Your task to perform on an android device: open app "Clock" Image 0: 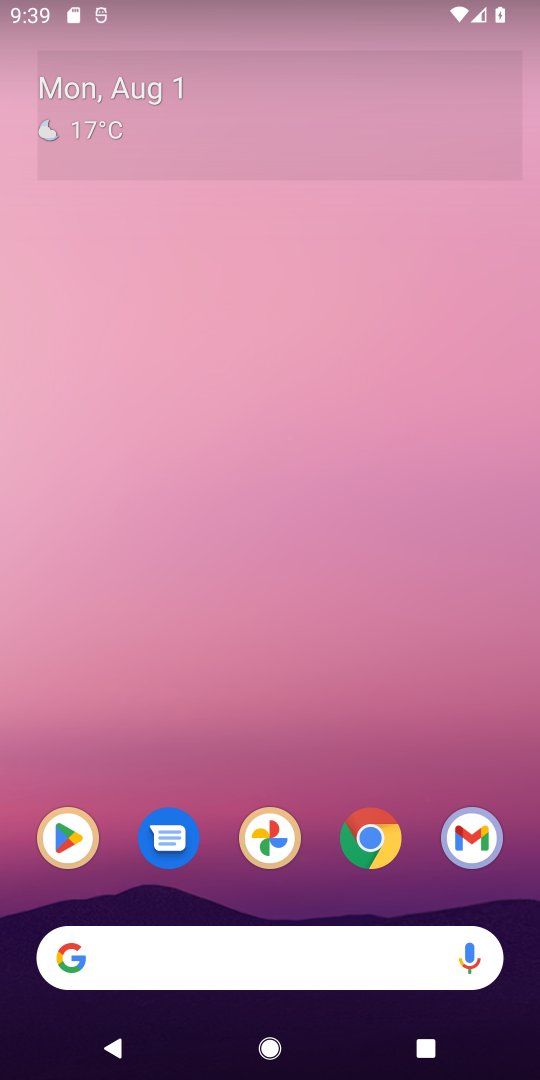
Step 0: press home button
Your task to perform on an android device: open app "Clock" Image 1: 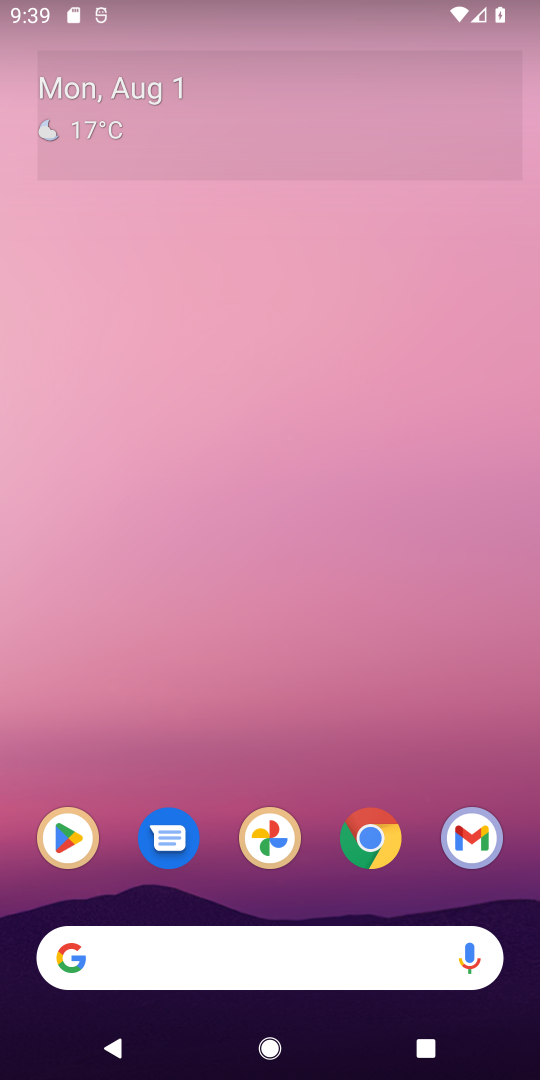
Step 1: click (48, 827)
Your task to perform on an android device: open app "Clock" Image 2: 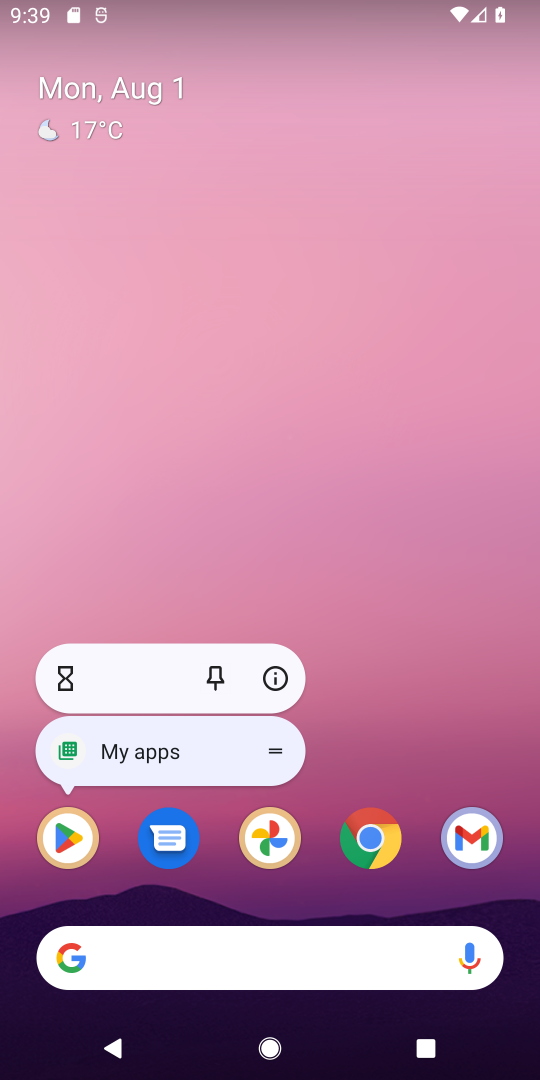
Step 2: click (59, 854)
Your task to perform on an android device: open app "Clock" Image 3: 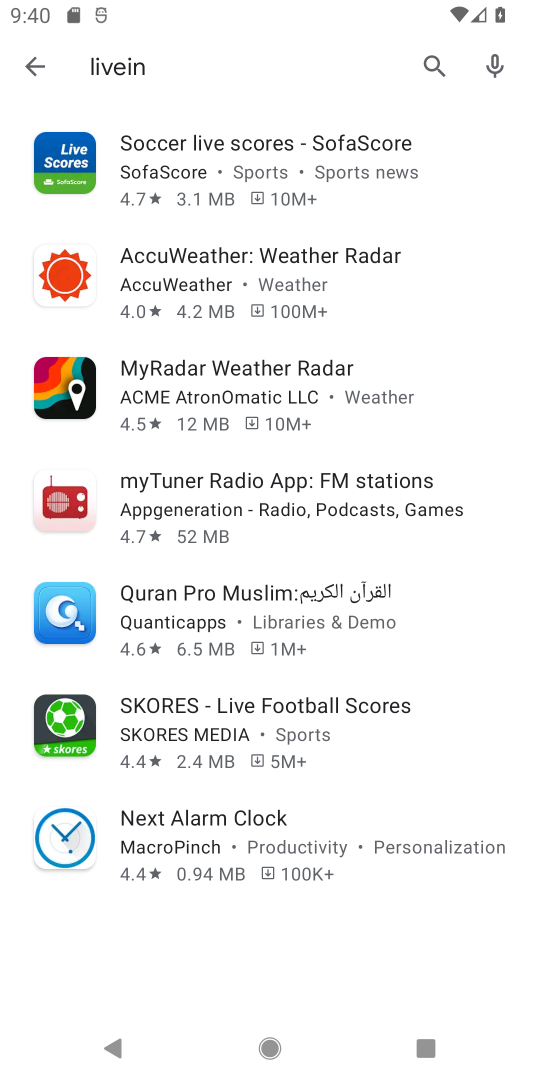
Step 3: click (425, 73)
Your task to perform on an android device: open app "Clock" Image 4: 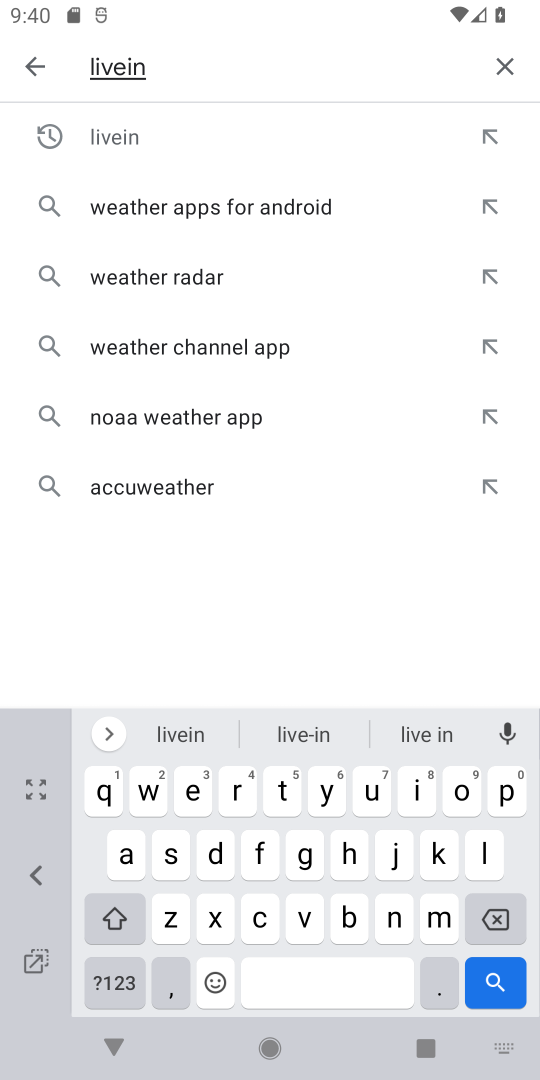
Step 4: click (496, 70)
Your task to perform on an android device: open app "Clock" Image 5: 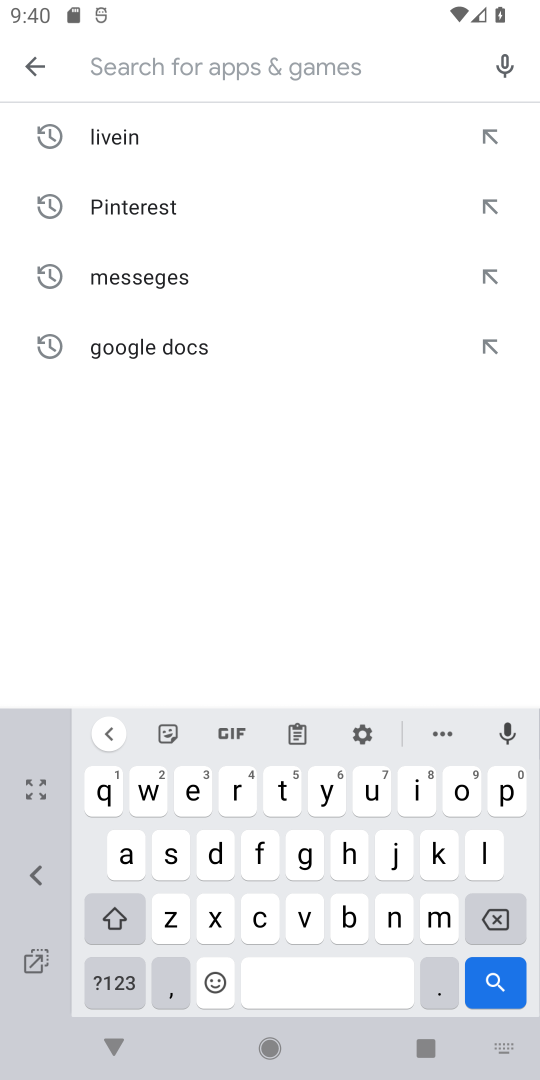
Step 5: click (506, 66)
Your task to perform on an android device: open app "Clock" Image 6: 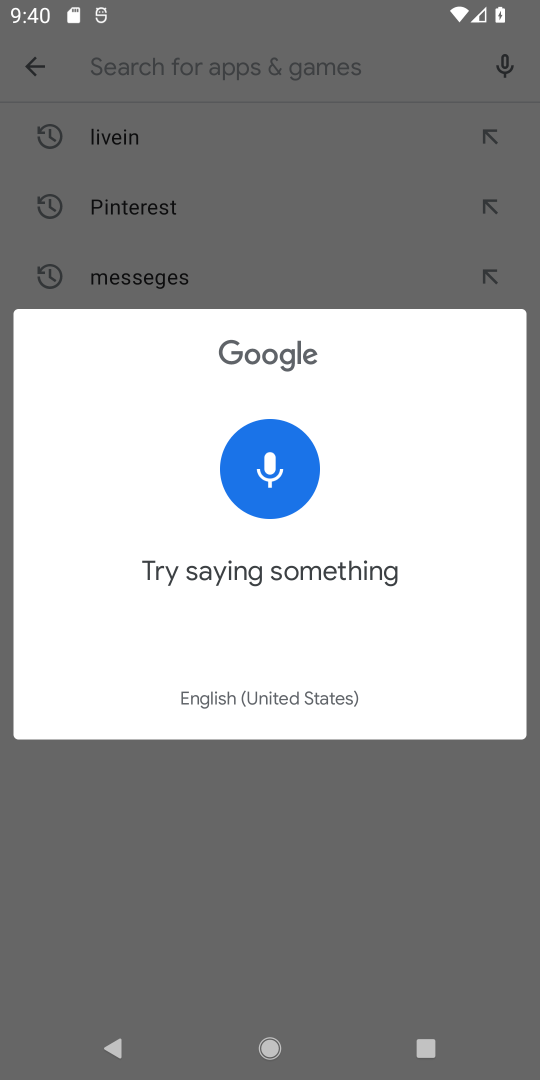
Step 6: click (300, 200)
Your task to perform on an android device: open app "Clock" Image 7: 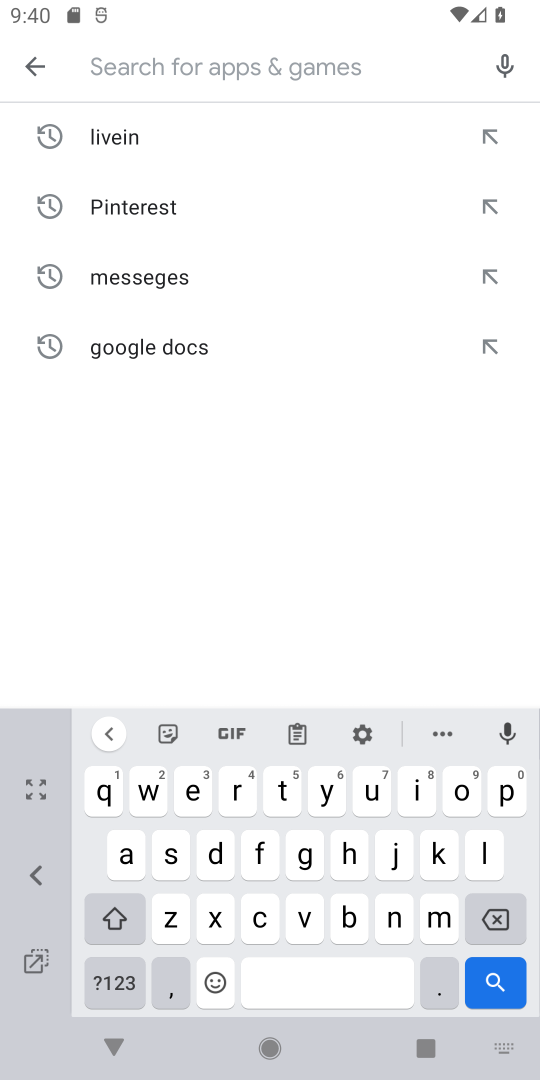
Step 7: click (250, 68)
Your task to perform on an android device: open app "Clock" Image 8: 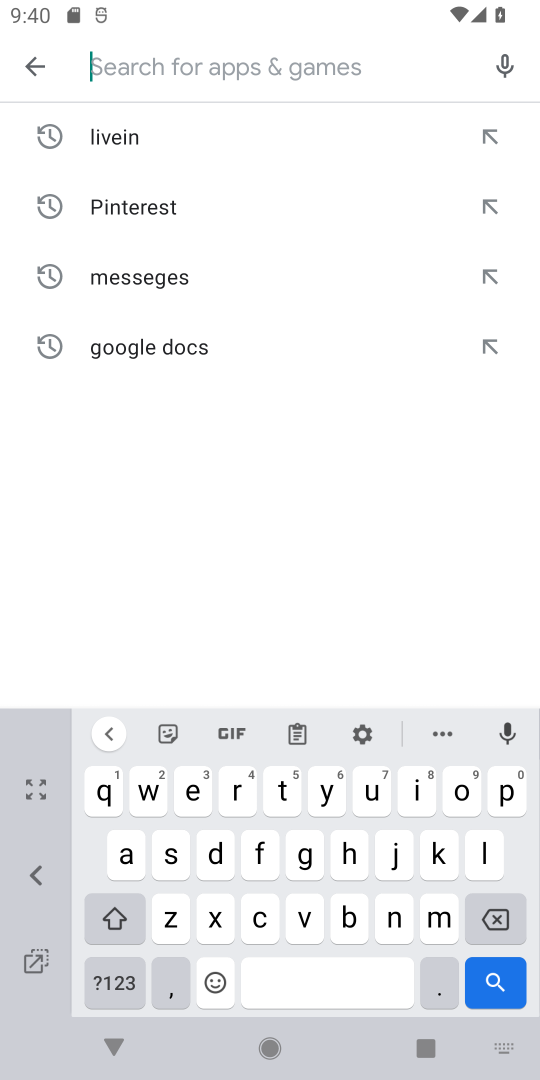
Step 8: type "clock"
Your task to perform on an android device: open app "Clock" Image 9: 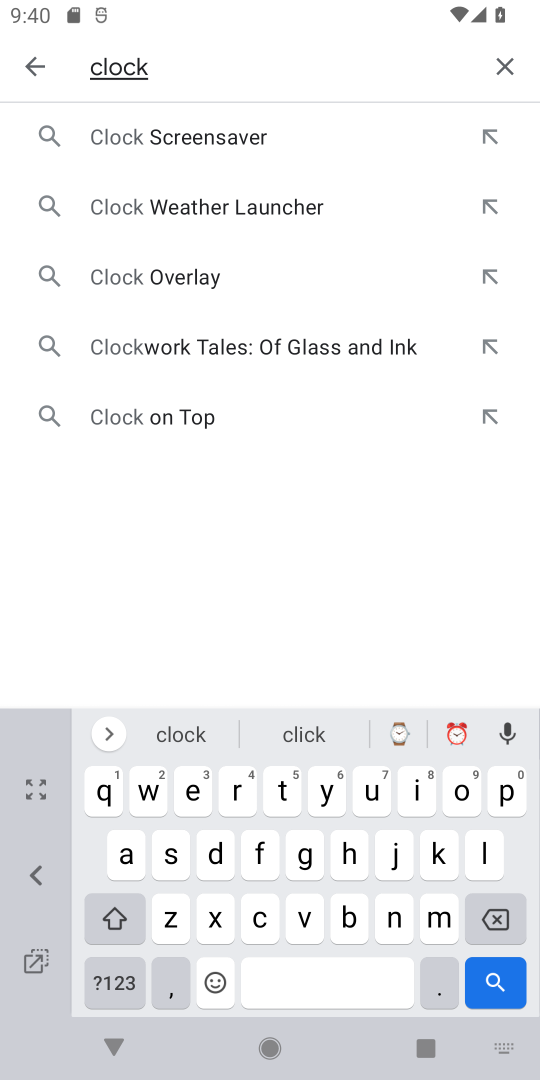
Step 9: click (491, 983)
Your task to perform on an android device: open app "Clock" Image 10: 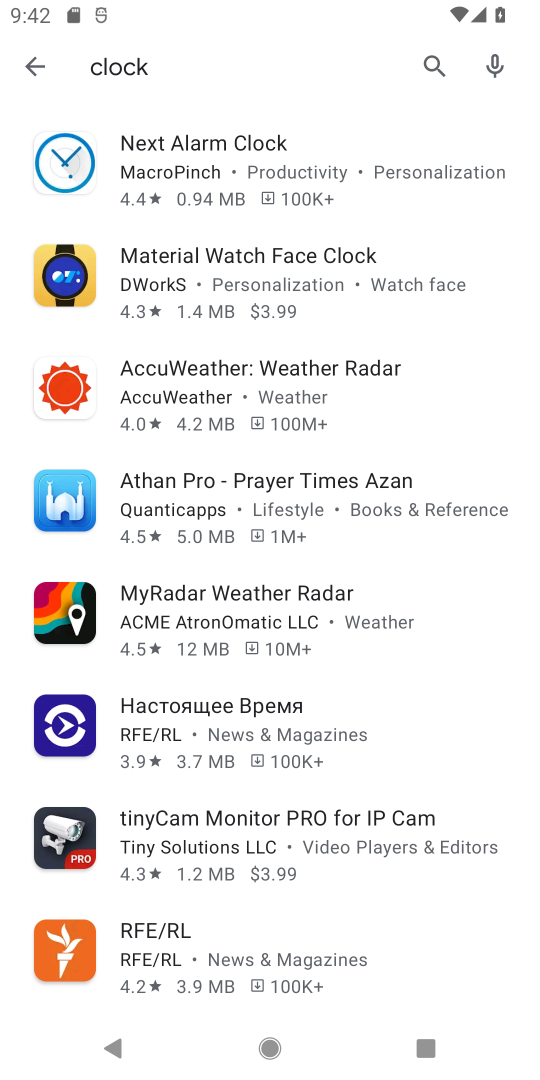
Step 10: task complete